Your task to perform on an android device: turn off data saver in the chrome app Image 0: 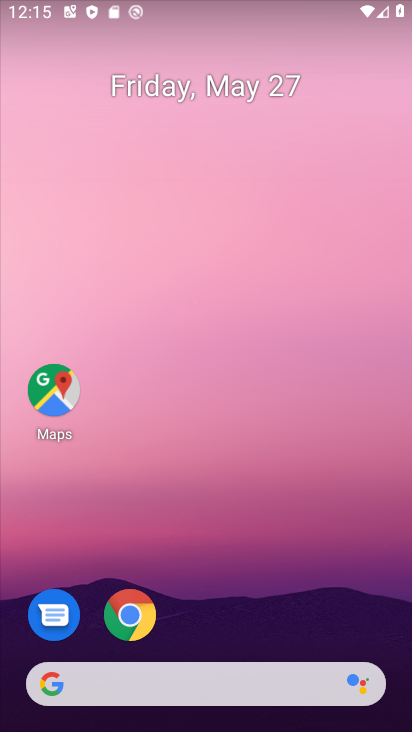
Step 0: drag from (298, 511) to (319, 154)
Your task to perform on an android device: turn off data saver in the chrome app Image 1: 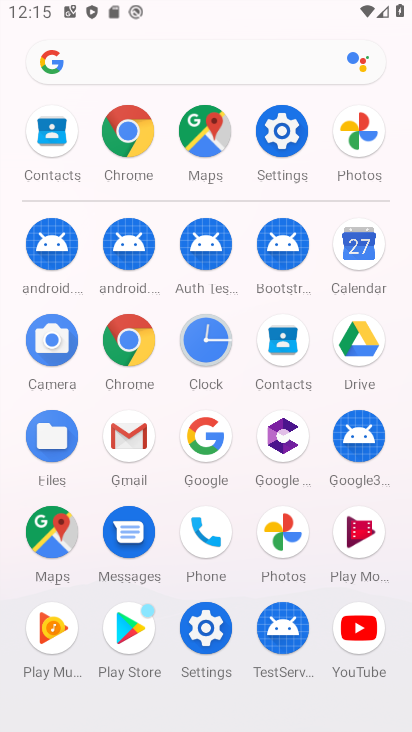
Step 1: click (139, 339)
Your task to perform on an android device: turn off data saver in the chrome app Image 2: 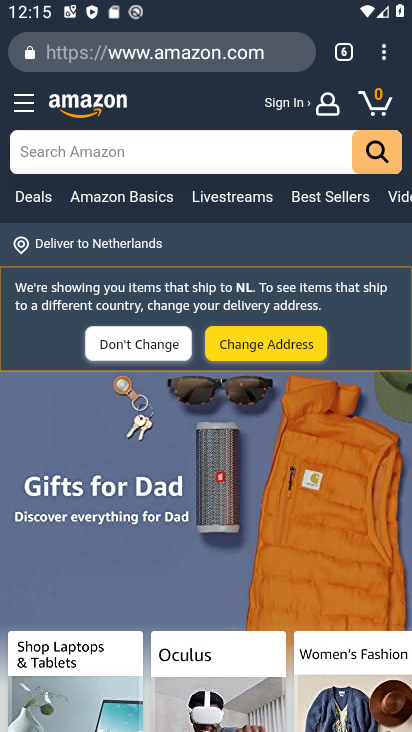
Step 2: drag from (378, 52) to (235, 619)
Your task to perform on an android device: turn off data saver in the chrome app Image 3: 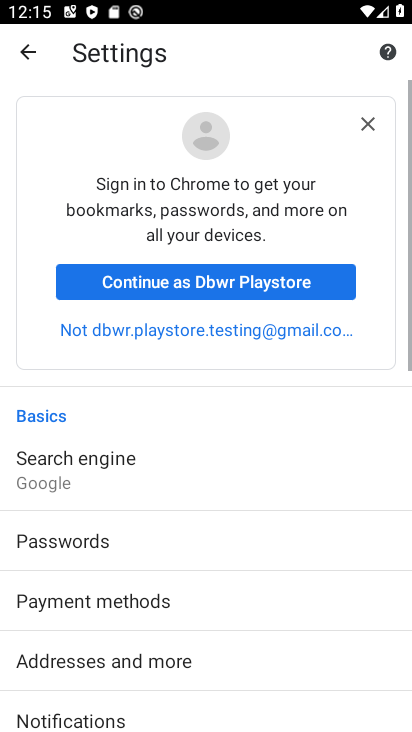
Step 3: drag from (194, 619) to (215, 11)
Your task to perform on an android device: turn off data saver in the chrome app Image 4: 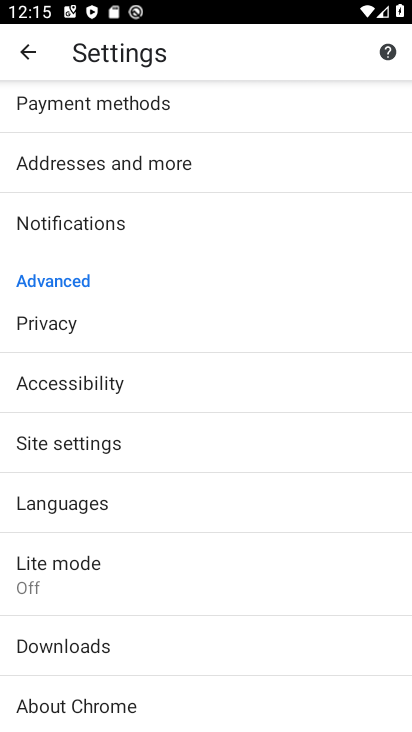
Step 4: click (101, 580)
Your task to perform on an android device: turn off data saver in the chrome app Image 5: 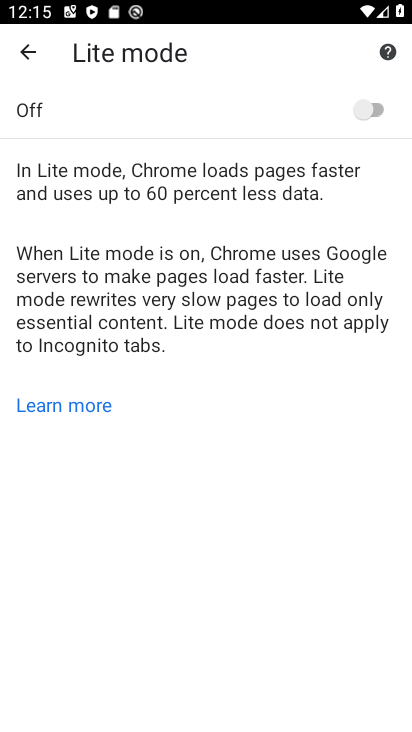
Step 5: task complete